Your task to perform on an android device: change timer sound Image 0: 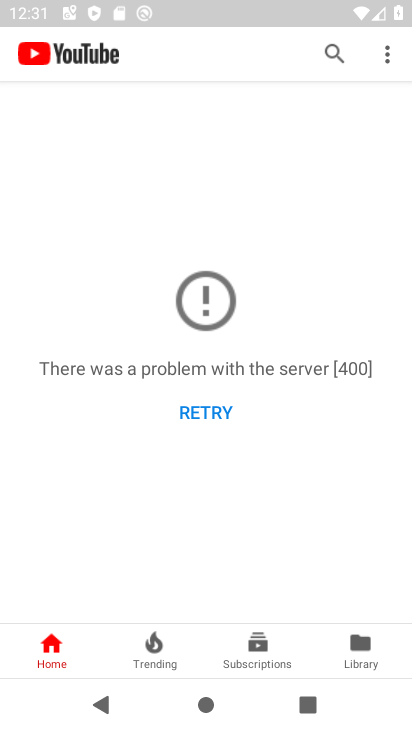
Step 0: press home button
Your task to perform on an android device: change timer sound Image 1: 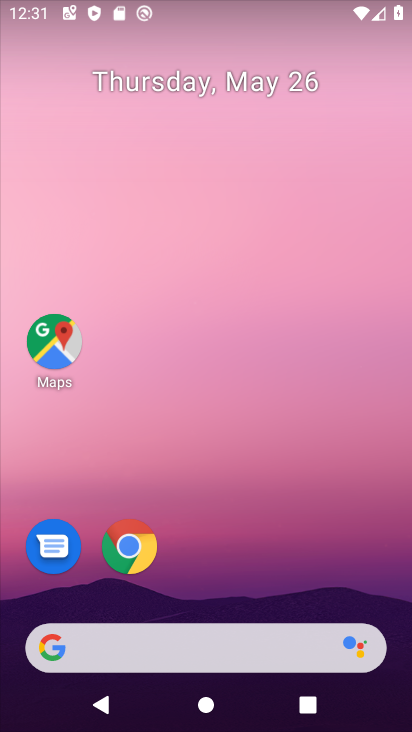
Step 1: drag from (321, 521) to (339, 61)
Your task to perform on an android device: change timer sound Image 2: 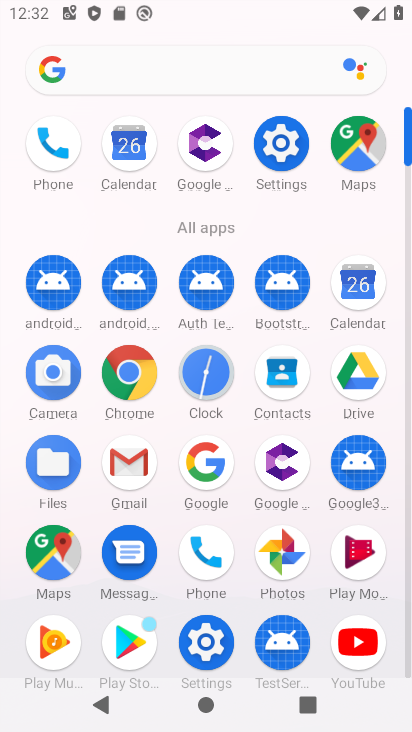
Step 2: click (216, 379)
Your task to perform on an android device: change timer sound Image 3: 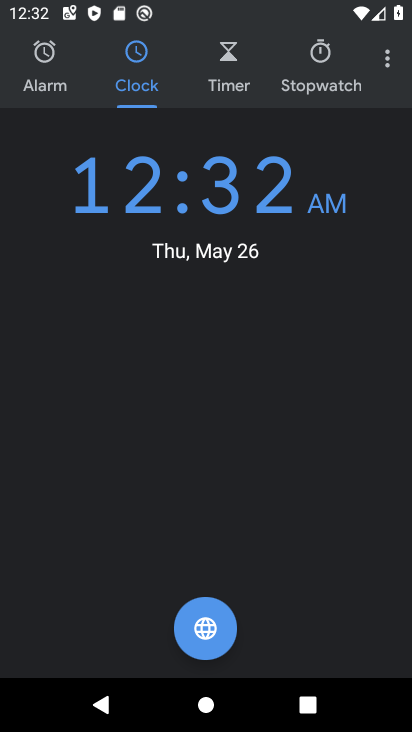
Step 3: click (381, 71)
Your task to perform on an android device: change timer sound Image 4: 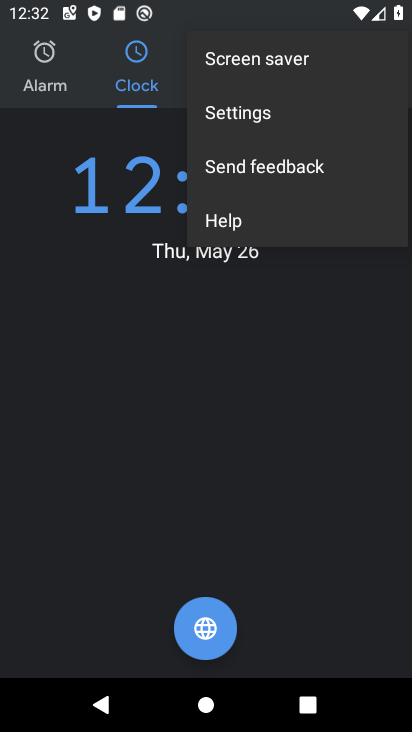
Step 4: click (280, 123)
Your task to perform on an android device: change timer sound Image 5: 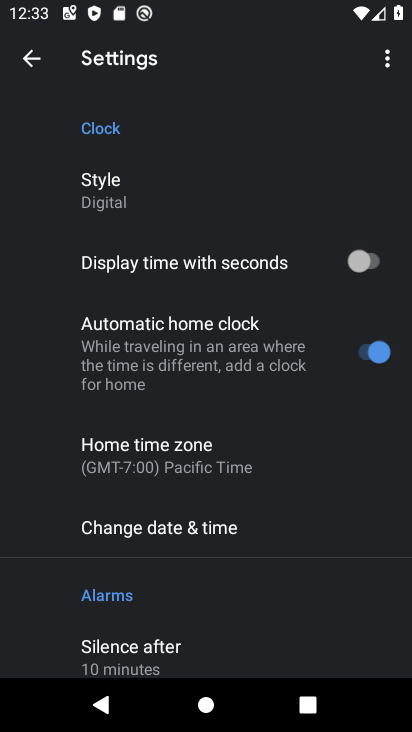
Step 5: drag from (210, 585) to (217, 124)
Your task to perform on an android device: change timer sound Image 6: 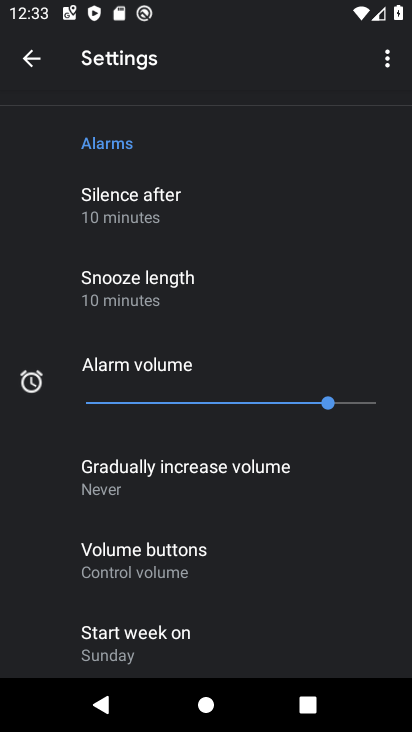
Step 6: drag from (167, 536) to (220, 229)
Your task to perform on an android device: change timer sound Image 7: 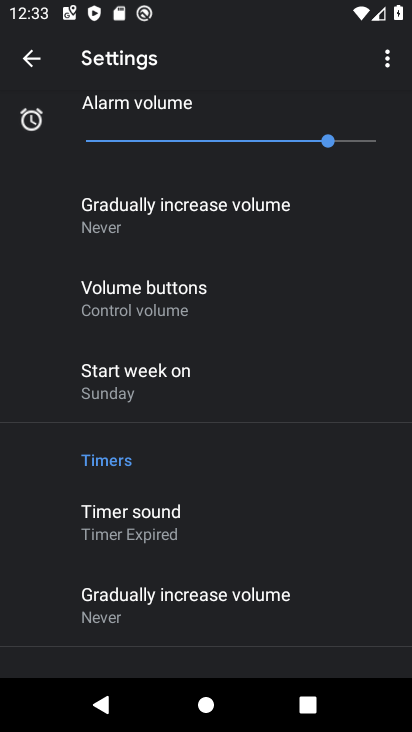
Step 7: click (155, 534)
Your task to perform on an android device: change timer sound Image 8: 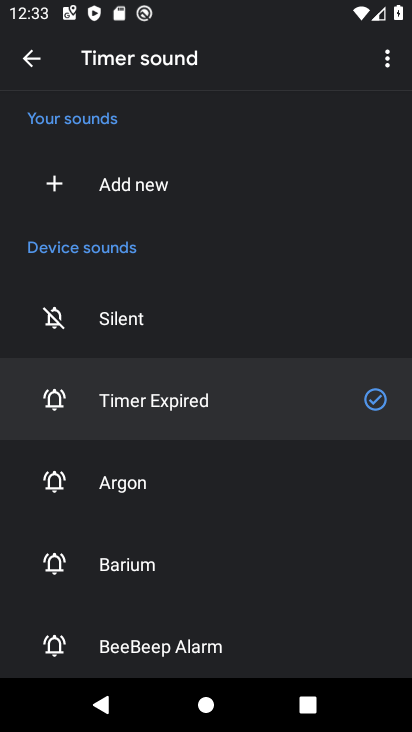
Step 8: click (147, 563)
Your task to perform on an android device: change timer sound Image 9: 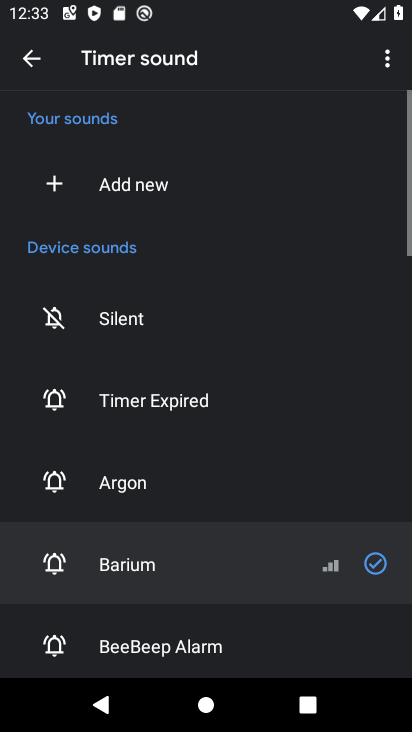
Step 9: task complete